Your task to perform on an android device: toggle translation in the chrome app Image 0: 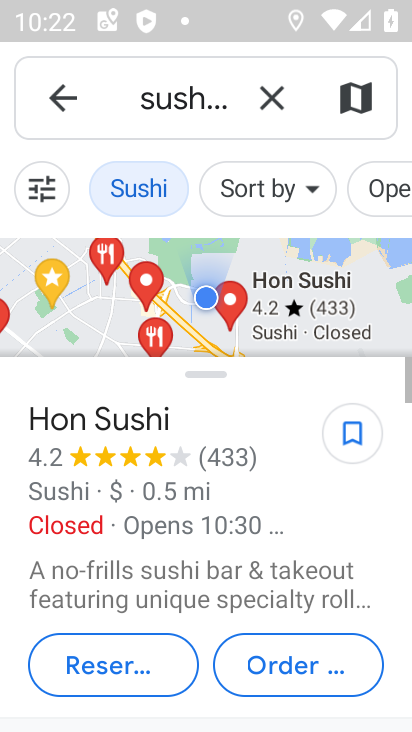
Step 0: press home button
Your task to perform on an android device: toggle translation in the chrome app Image 1: 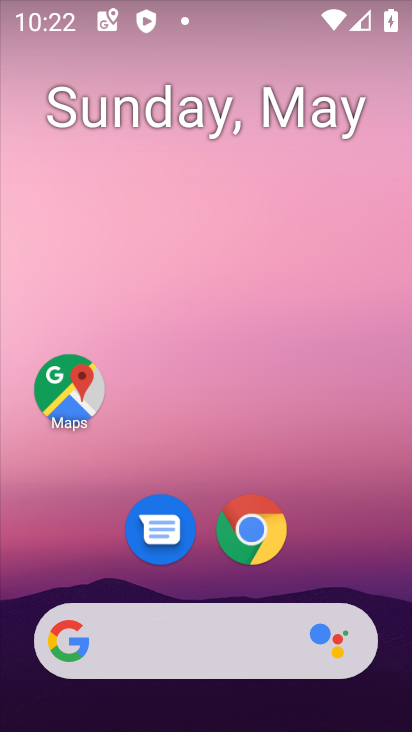
Step 1: drag from (191, 635) to (133, 87)
Your task to perform on an android device: toggle translation in the chrome app Image 2: 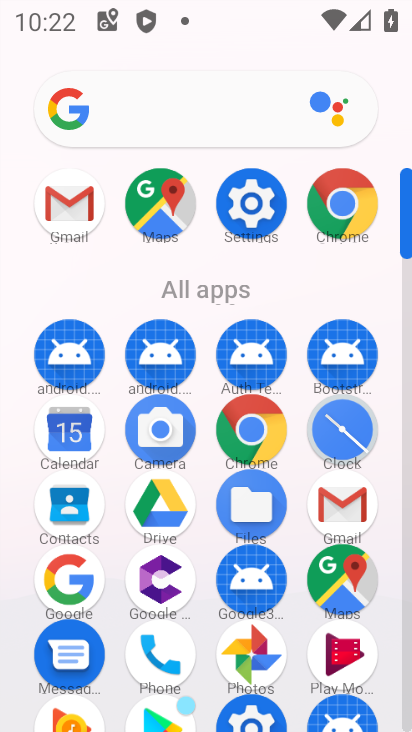
Step 2: click (360, 201)
Your task to perform on an android device: toggle translation in the chrome app Image 3: 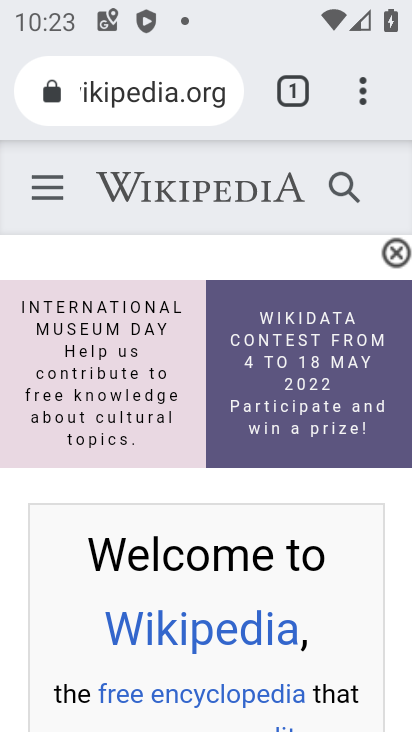
Step 3: click (330, 96)
Your task to perform on an android device: toggle translation in the chrome app Image 4: 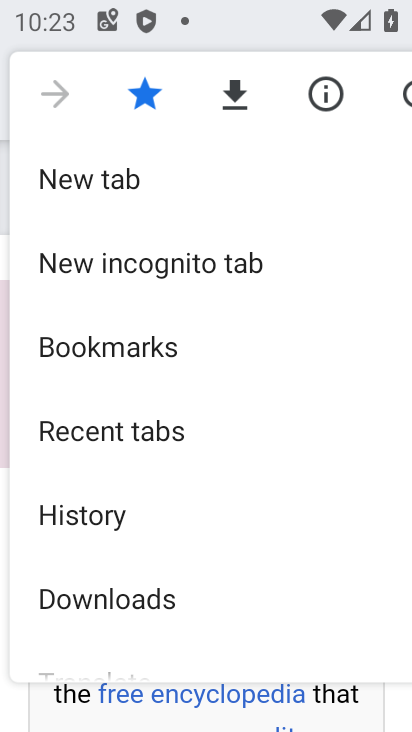
Step 4: drag from (94, 589) to (104, 197)
Your task to perform on an android device: toggle translation in the chrome app Image 5: 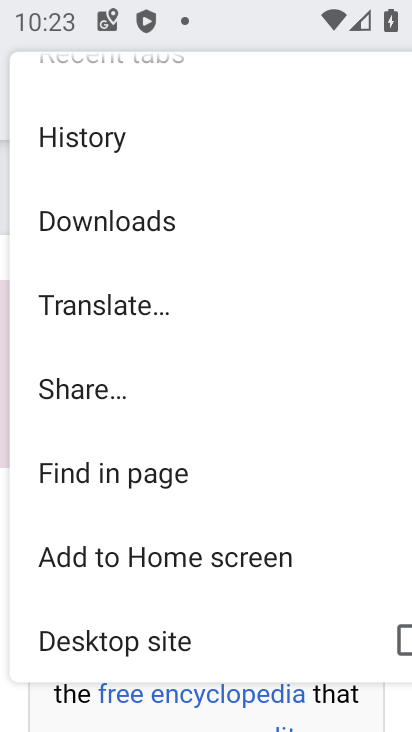
Step 5: drag from (134, 526) to (105, 74)
Your task to perform on an android device: toggle translation in the chrome app Image 6: 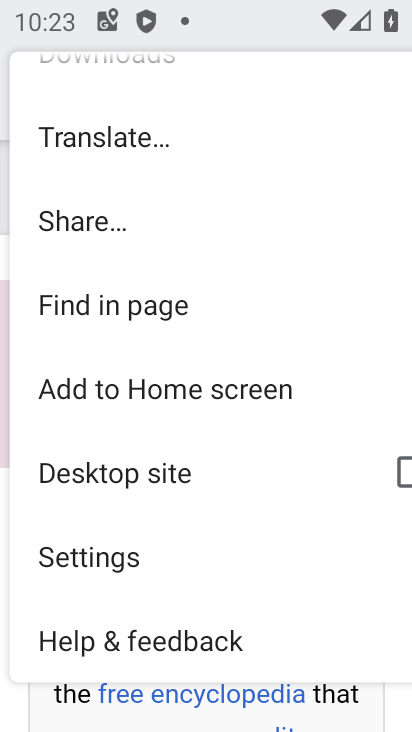
Step 6: click (118, 564)
Your task to perform on an android device: toggle translation in the chrome app Image 7: 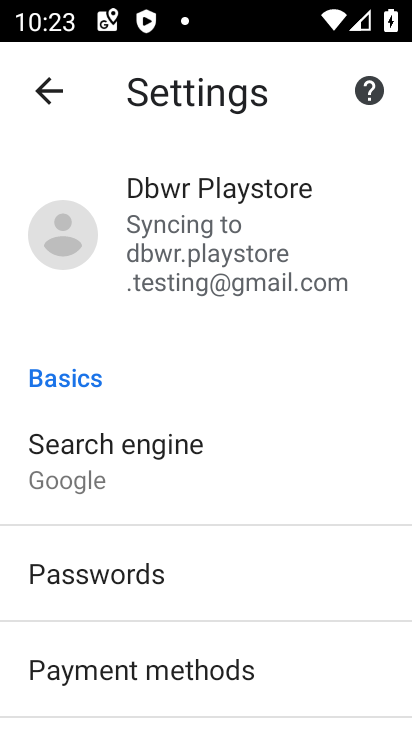
Step 7: drag from (189, 658) to (122, 202)
Your task to perform on an android device: toggle translation in the chrome app Image 8: 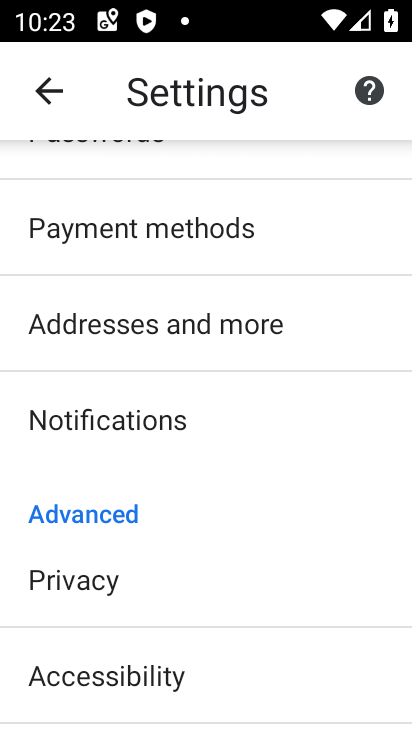
Step 8: drag from (181, 627) to (142, 132)
Your task to perform on an android device: toggle translation in the chrome app Image 9: 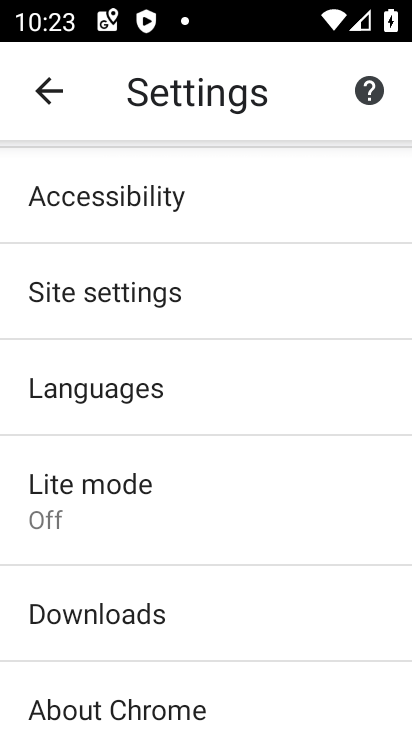
Step 9: click (122, 400)
Your task to perform on an android device: toggle translation in the chrome app Image 10: 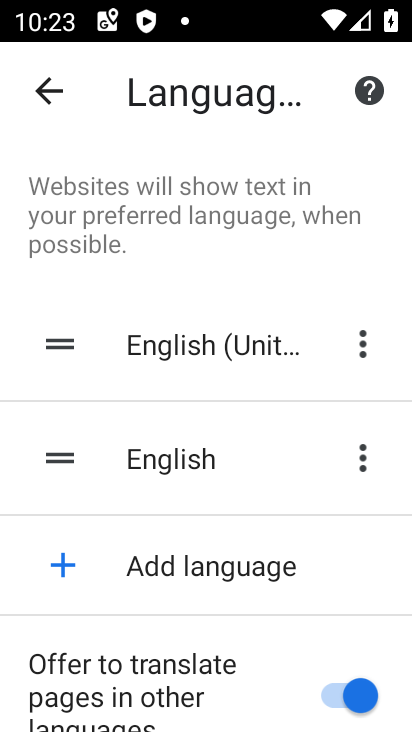
Step 10: drag from (208, 633) to (170, 335)
Your task to perform on an android device: toggle translation in the chrome app Image 11: 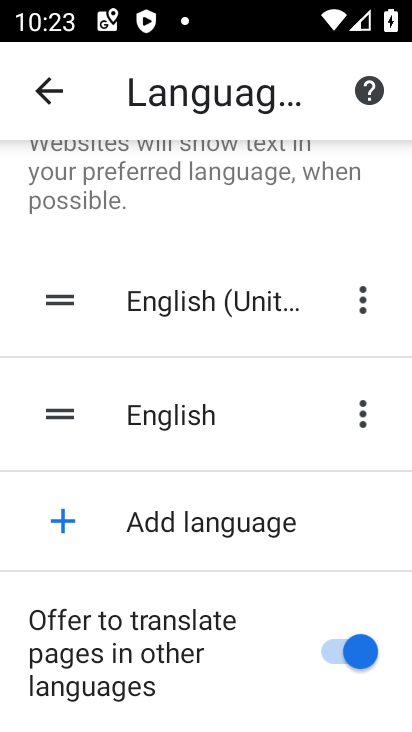
Step 11: click (338, 639)
Your task to perform on an android device: toggle translation in the chrome app Image 12: 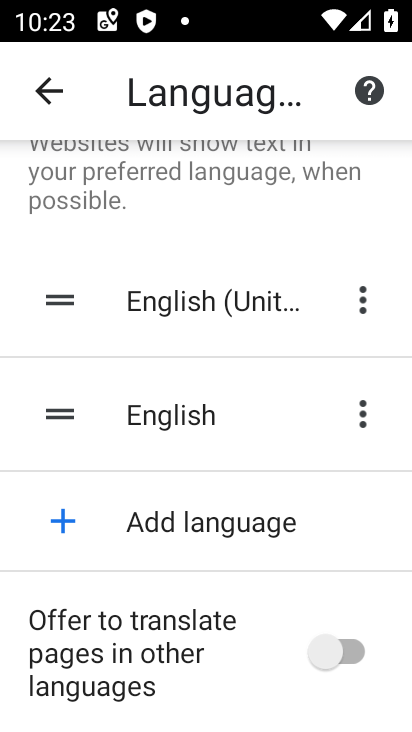
Step 12: task complete